Your task to perform on an android device: see sites visited before in the chrome app Image 0: 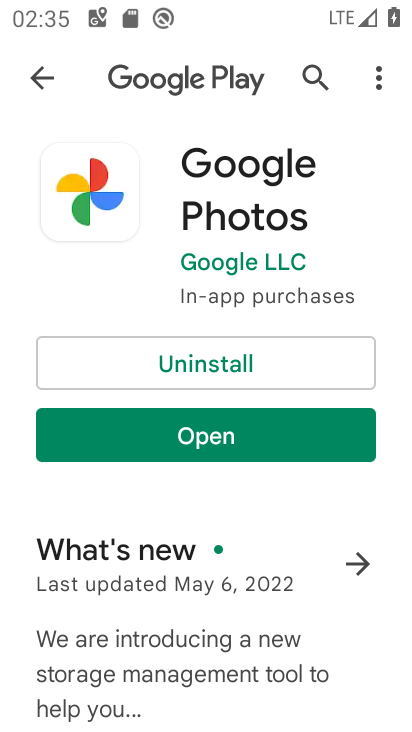
Step 0: press home button
Your task to perform on an android device: see sites visited before in the chrome app Image 1: 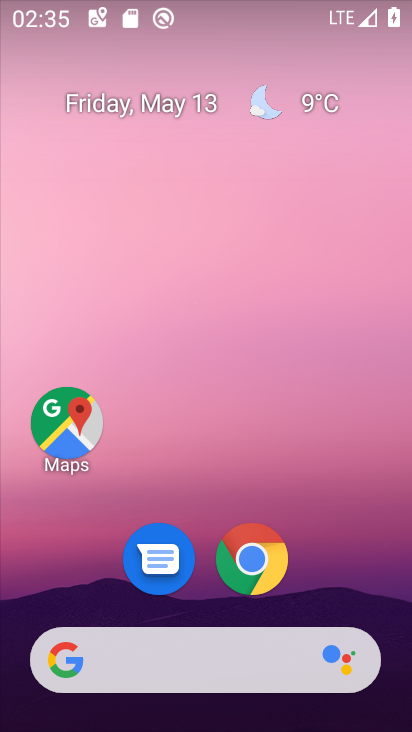
Step 1: click (268, 561)
Your task to perform on an android device: see sites visited before in the chrome app Image 2: 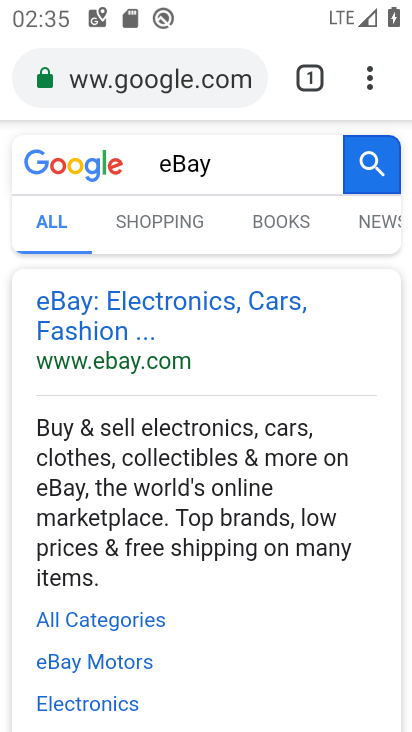
Step 2: click (369, 65)
Your task to perform on an android device: see sites visited before in the chrome app Image 3: 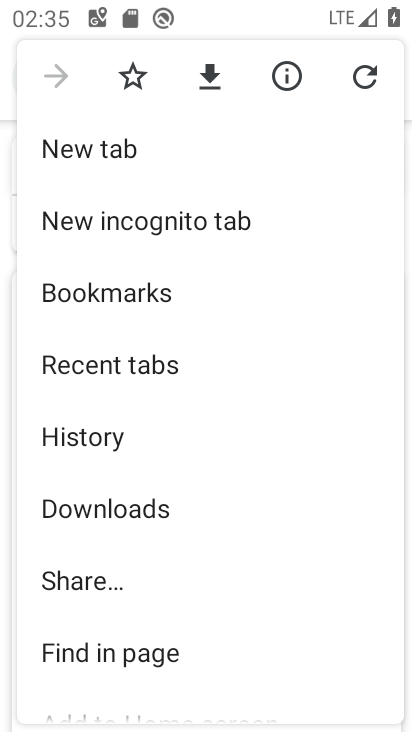
Step 3: drag from (255, 636) to (265, 333)
Your task to perform on an android device: see sites visited before in the chrome app Image 4: 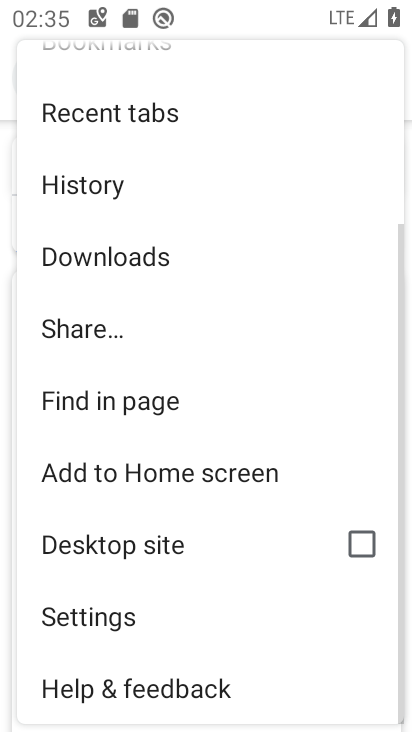
Step 4: click (112, 620)
Your task to perform on an android device: see sites visited before in the chrome app Image 5: 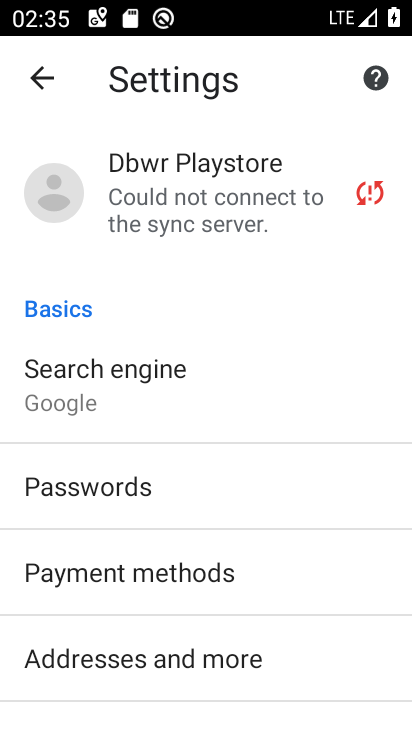
Step 5: drag from (306, 688) to (306, 396)
Your task to perform on an android device: see sites visited before in the chrome app Image 6: 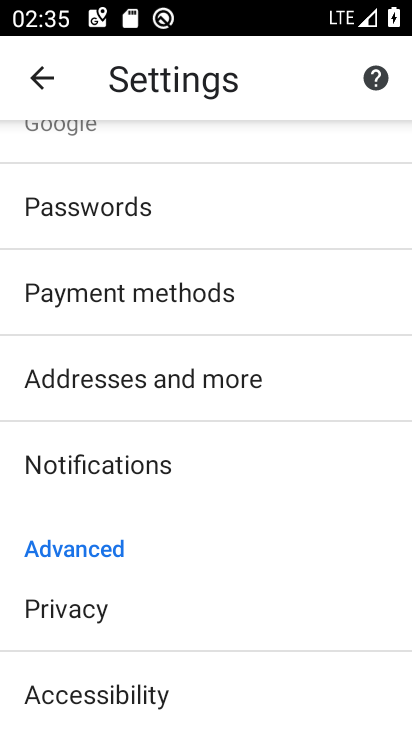
Step 6: drag from (309, 710) to (314, 379)
Your task to perform on an android device: see sites visited before in the chrome app Image 7: 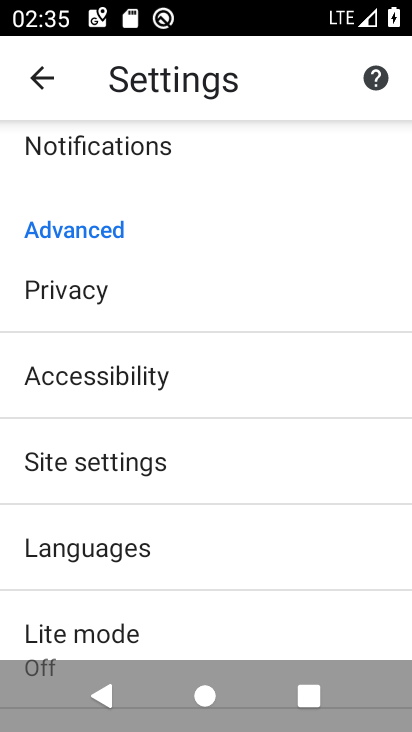
Step 7: drag from (322, 641) to (331, 404)
Your task to perform on an android device: see sites visited before in the chrome app Image 8: 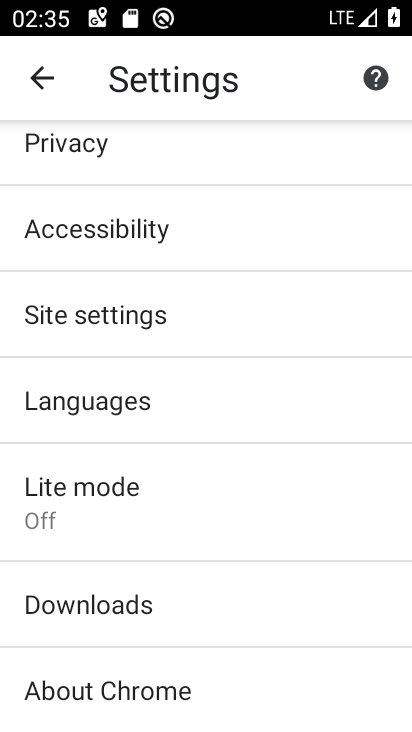
Step 8: drag from (309, 689) to (301, 302)
Your task to perform on an android device: see sites visited before in the chrome app Image 9: 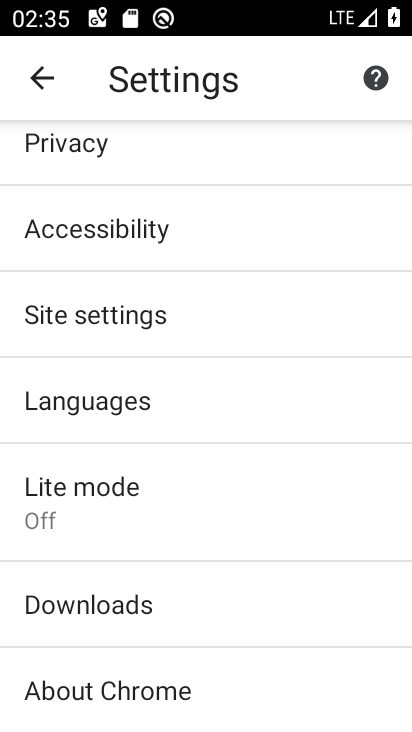
Step 9: click (48, 72)
Your task to perform on an android device: see sites visited before in the chrome app Image 10: 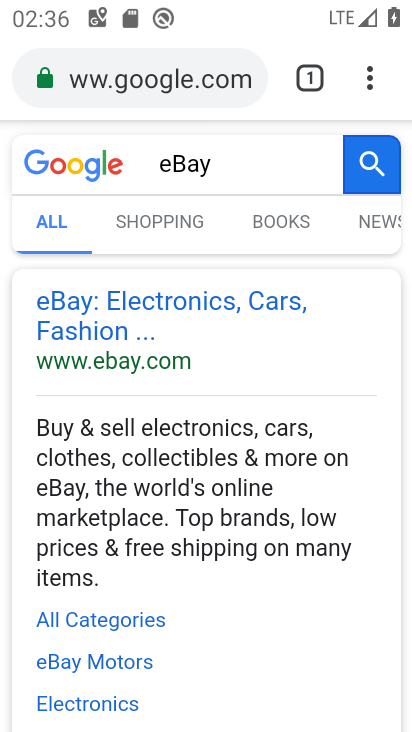
Step 10: click (370, 71)
Your task to perform on an android device: see sites visited before in the chrome app Image 11: 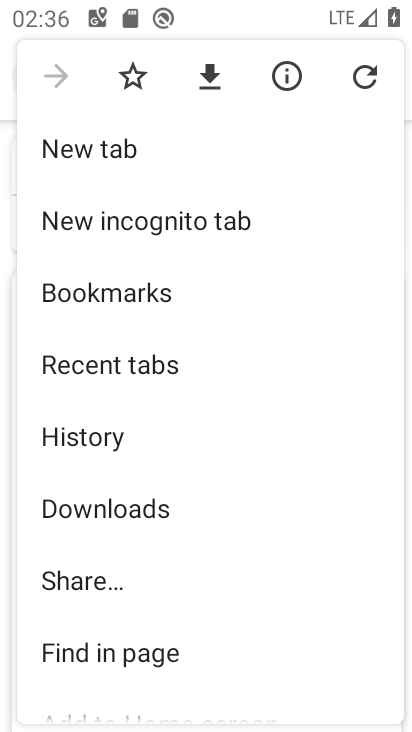
Step 11: click (106, 360)
Your task to perform on an android device: see sites visited before in the chrome app Image 12: 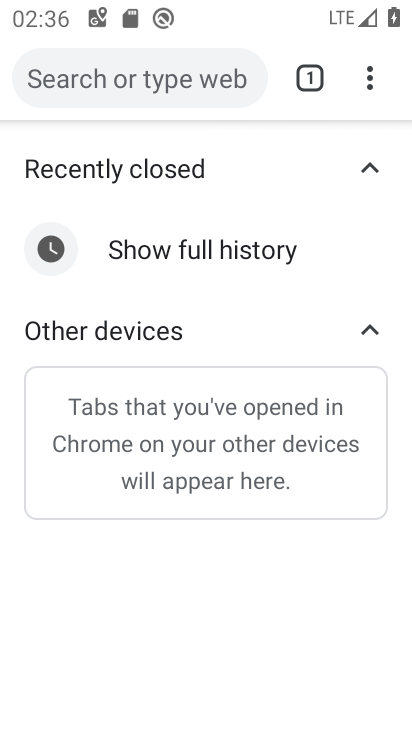
Step 12: task complete